Your task to perform on an android device: Open Chrome and go to settings Image 0: 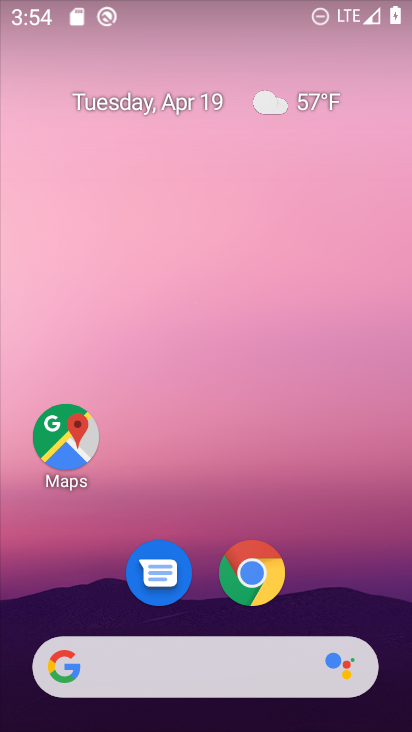
Step 0: click (254, 579)
Your task to perform on an android device: Open Chrome and go to settings Image 1: 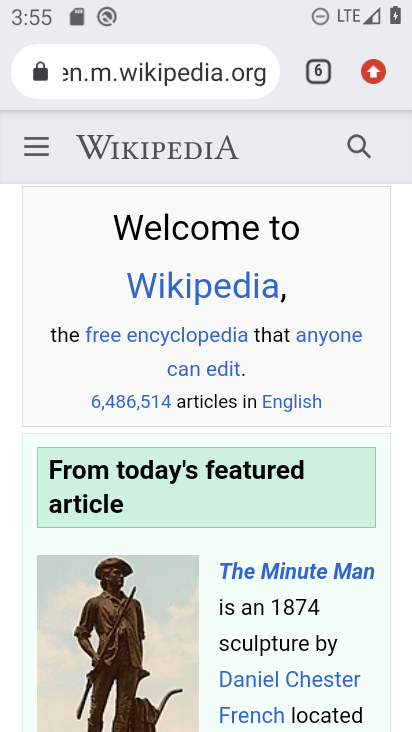
Step 1: click (373, 68)
Your task to perform on an android device: Open Chrome and go to settings Image 2: 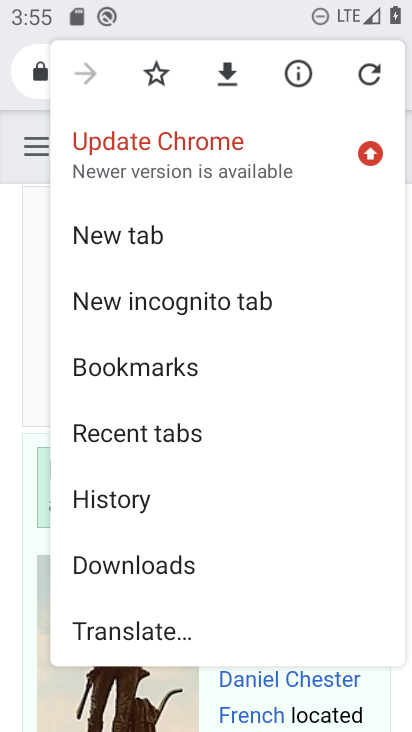
Step 2: drag from (290, 556) to (305, 208)
Your task to perform on an android device: Open Chrome and go to settings Image 3: 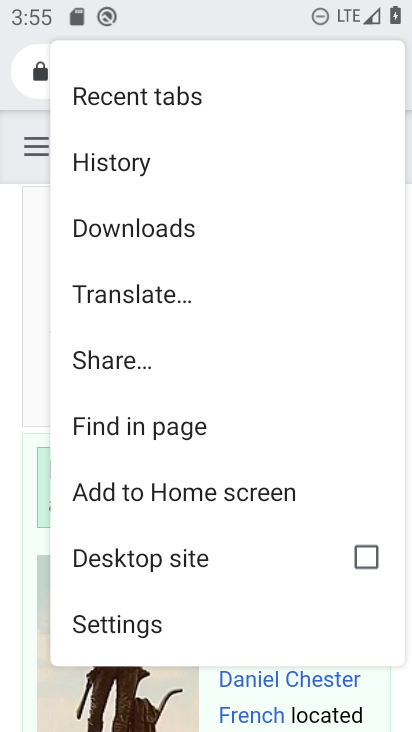
Step 3: click (116, 620)
Your task to perform on an android device: Open Chrome and go to settings Image 4: 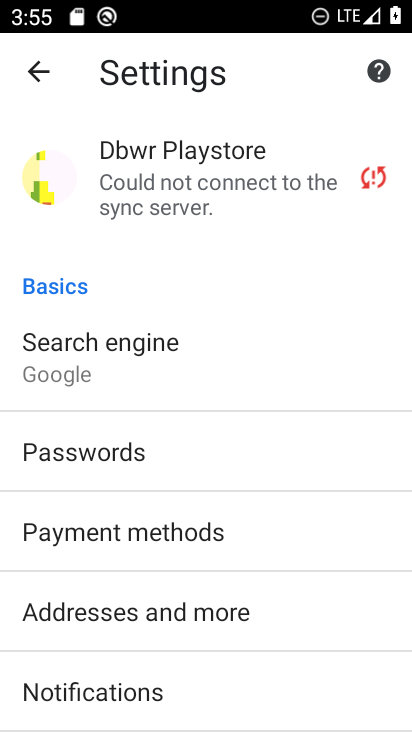
Step 4: task complete